Your task to perform on an android device: Go to accessibility settings Image 0: 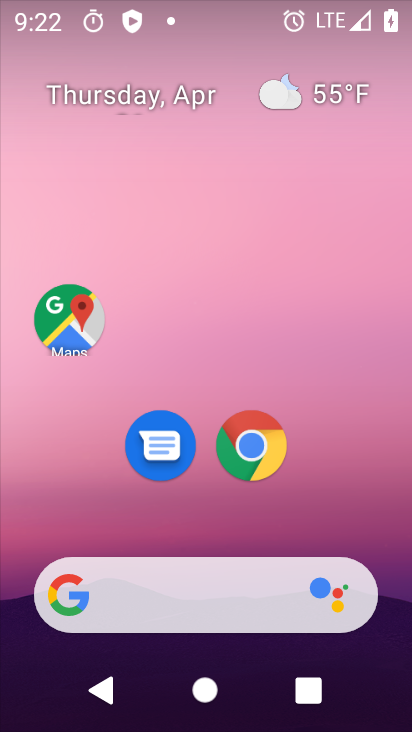
Step 0: drag from (395, 548) to (400, 429)
Your task to perform on an android device: Go to accessibility settings Image 1: 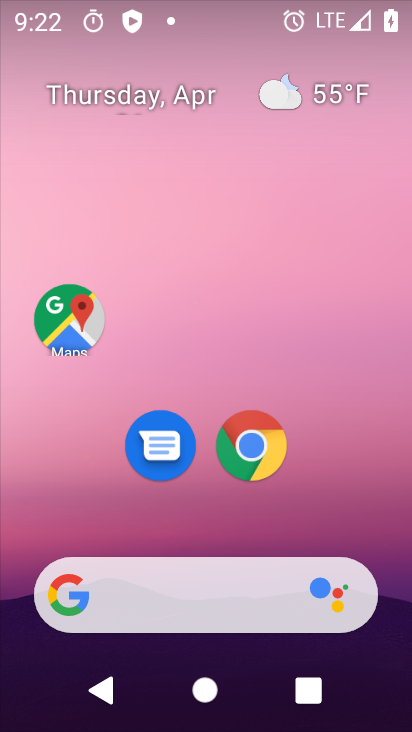
Step 1: drag from (378, 552) to (400, 401)
Your task to perform on an android device: Go to accessibility settings Image 2: 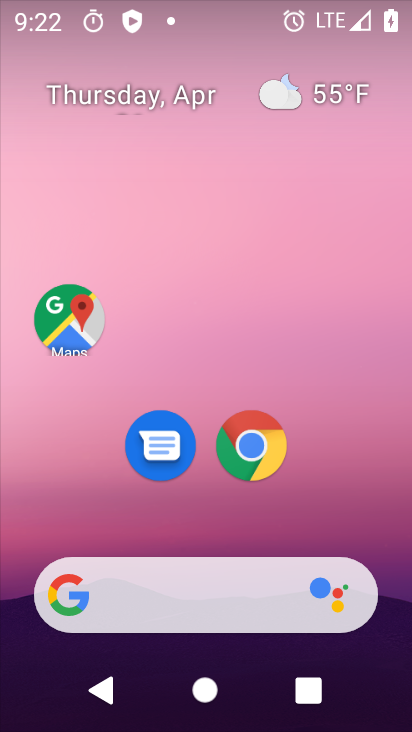
Step 2: drag from (379, 546) to (366, 0)
Your task to perform on an android device: Go to accessibility settings Image 3: 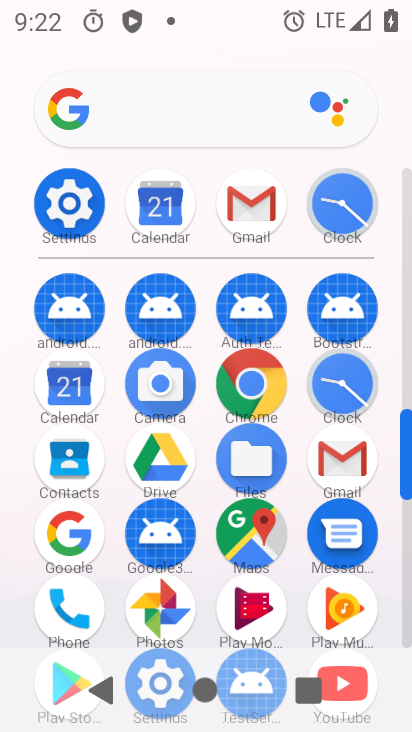
Step 3: click (66, 218)
Your task to perform on an android device: Go to accessibility settings Image 4: 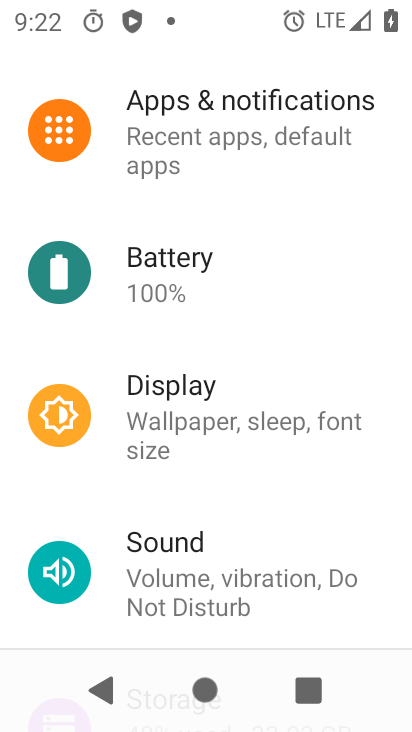
Step 4: drag from (377, 558) to (363, 83)
Your task to perform on an android device: Go to accessibility settings Image 5: 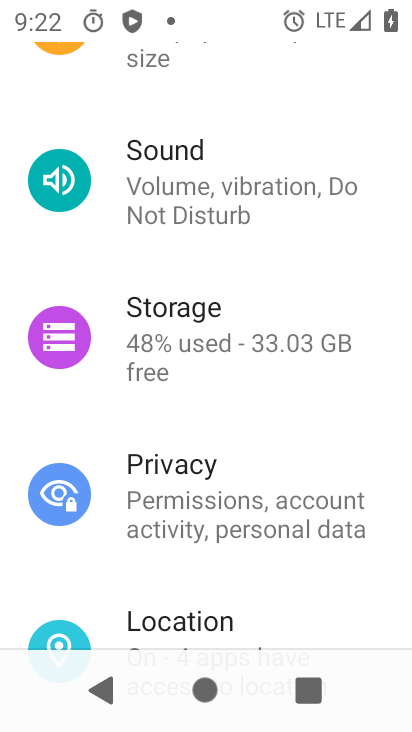
Step 5: drag from (359, 555) to (303, 131)
Your task to perform on an android device: Go to accessibility settings Image 6: 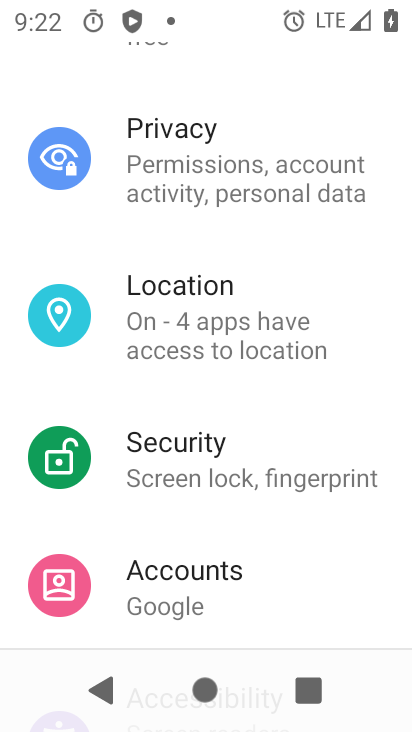
Step 6: drag from (337, 487) to (316, 122)
Your task to perform on an android device: Go to accessibility settings Image 7: 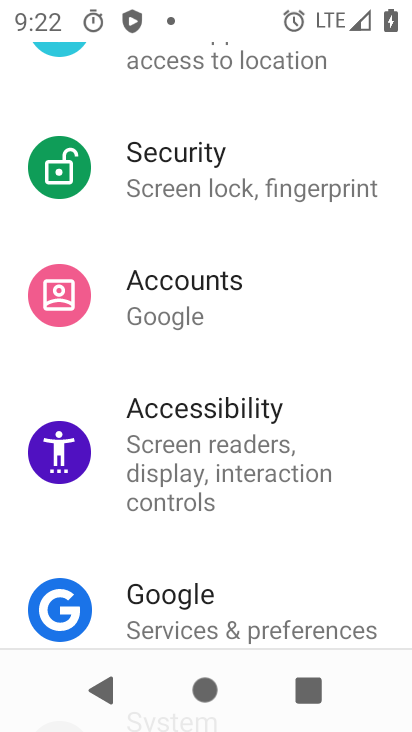
Step 7: click (183, 454)
Your task to perform on an android device: Go to accessibility settings Image 8: 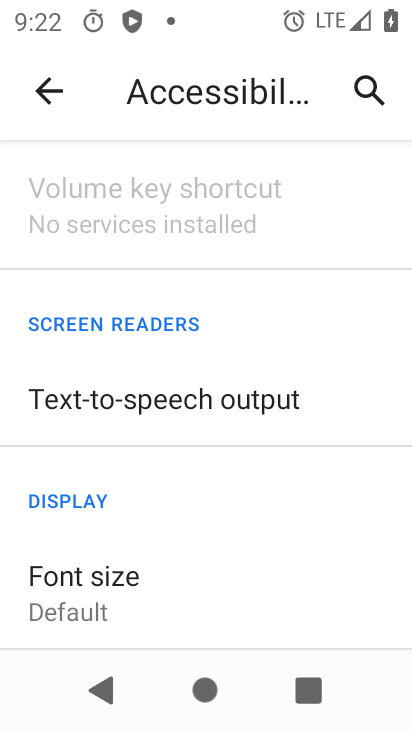
Step 8: task complete